Your task to perform on an android device: What's the weather going to be this weekend? Image 0: 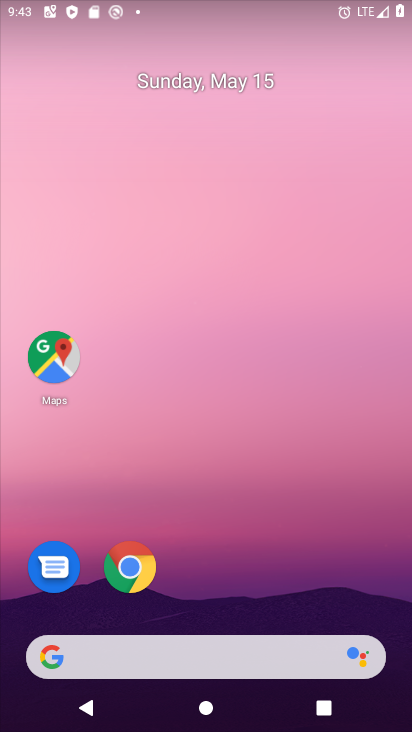
Step 0: drag from (138, 713) to (217, 29)
Your task to perform on an android device: What's the weather going to be this weekend? Image 1: 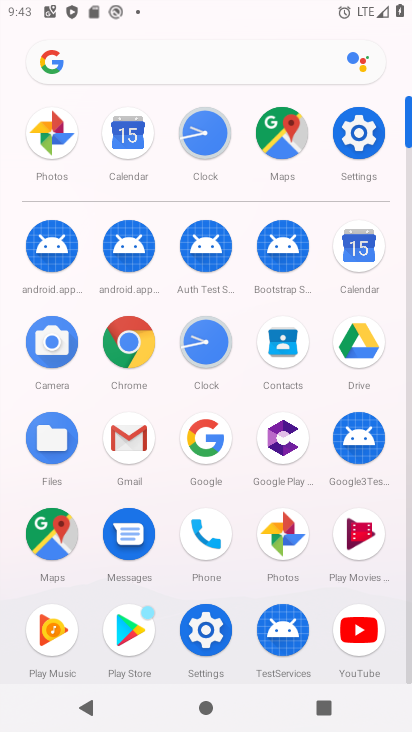
Step 1: drag from (250, 719) to (72, 717)
Your task to perform on an android device: What's the weather going to be this weekend? Image 2: 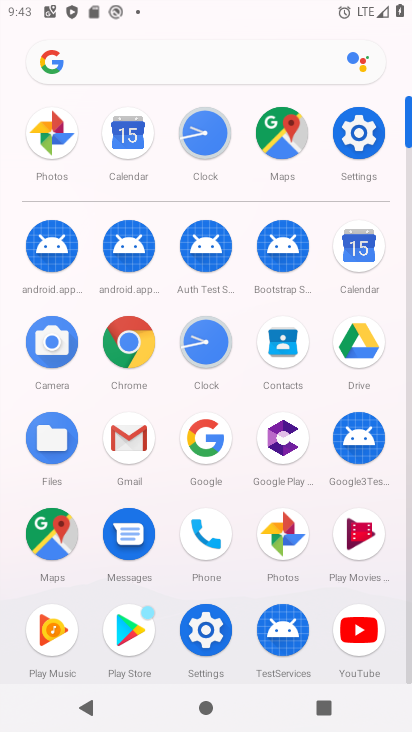
Step 2: click (220, 449)
Your task to perform on an android device: What's the weather going to be this weekend? Image 3: 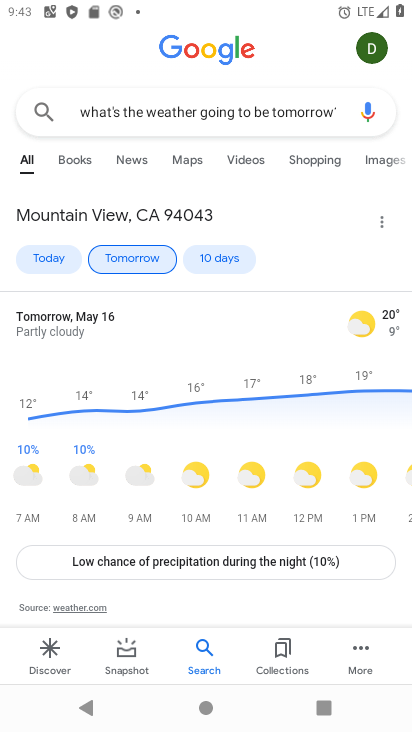
Step 3: click (313, 108)
Your task to perform on an android device: What's the weather going to be this weekend? Image 4: 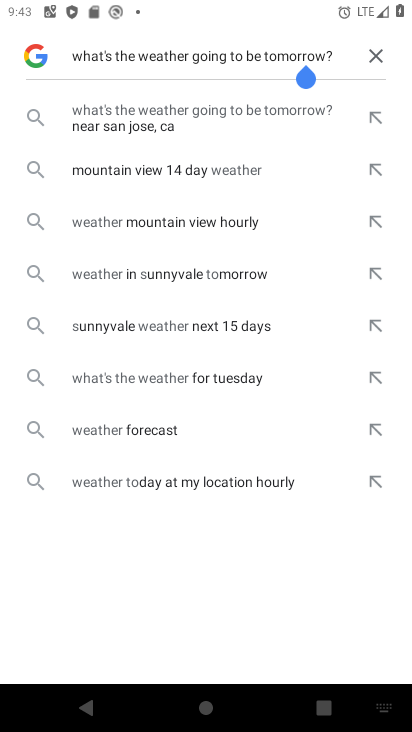
Step 4: click (366, 57)
Your task to perform on an android device: What's the weather going to be this weekend? Image 5: 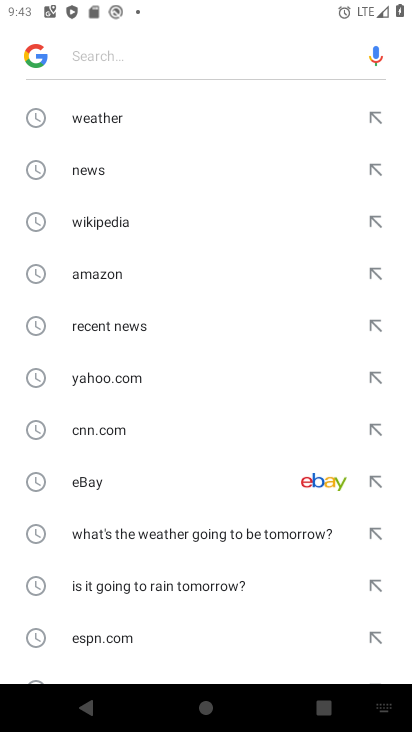
Step 5: type " What's the weather going to be this weekend?"
Your task to perform on an android device: What's the weather going to be this weekend? Image 6: 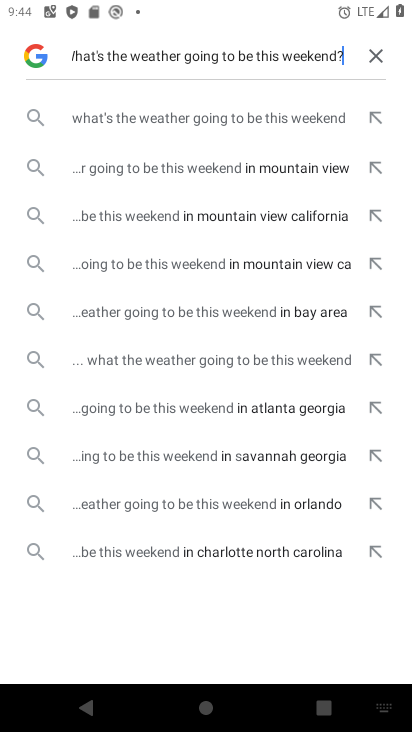
Step 6: click (279, 118)
Your task to perform on an android device: What's the weather going to be this weekend? Image 7: 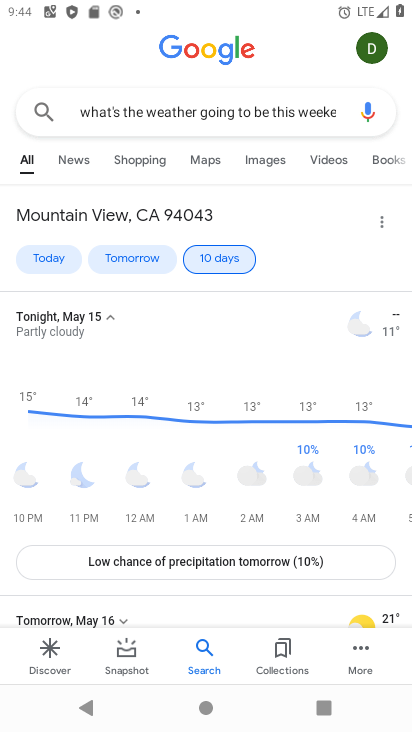
Step 7: task complete